Your task to perform on an android device: Open sound settings Image 0: 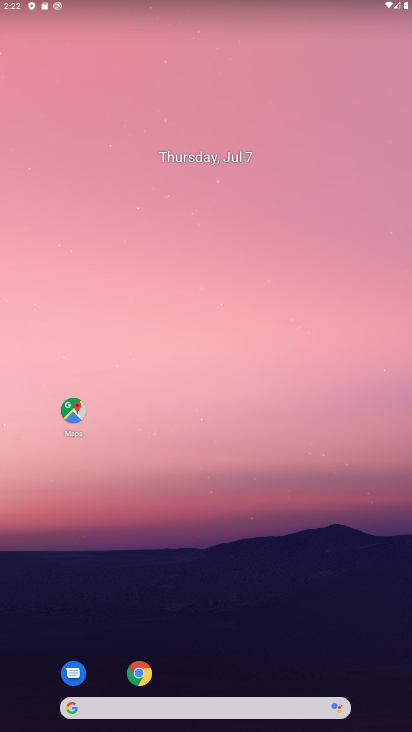
Step 0: drag from (213, 684) to (203, 43)
Your task to perform on an android device: Open sound settings Image 1: 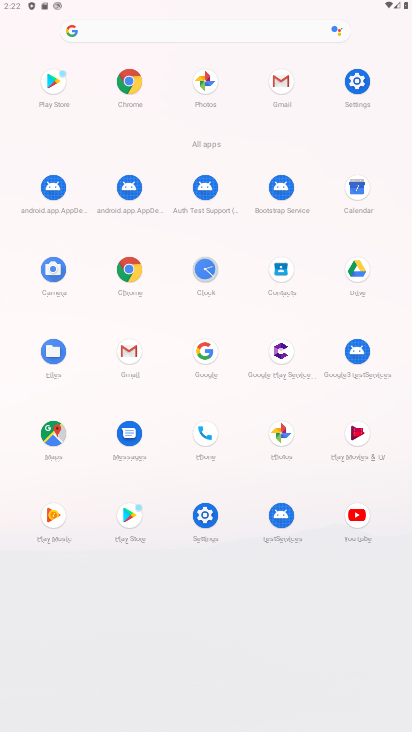
Step 1: click (347, 93)
Your task to perform on an android device: Open sound settings Image 2: 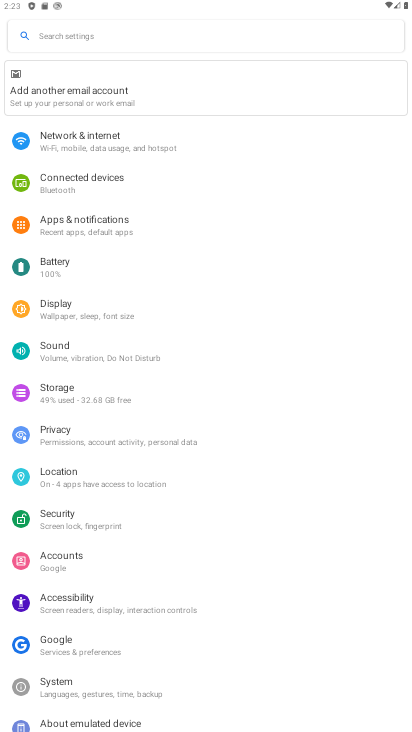
Step 2: click (52, 363)
Your task to perform on an android device: Open sound settings Image 3: 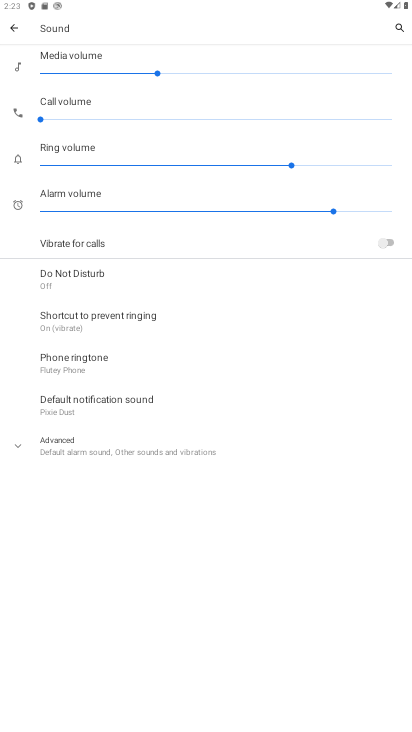
Step 3: click (69, 441)
Your task to perform on an android device: Open sound settings Image 4: 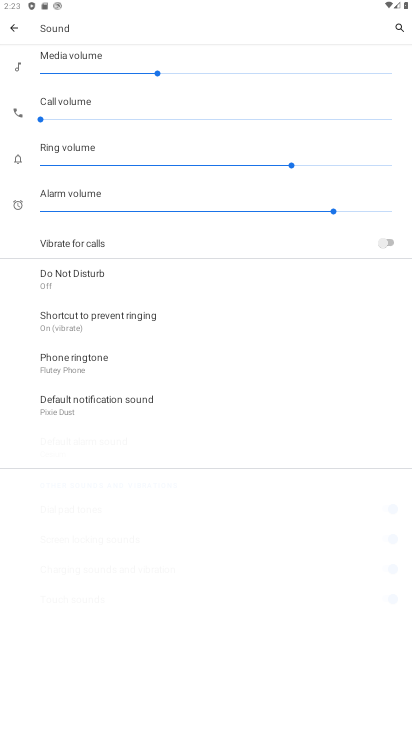
Step 4: task complete